Your task to perform on an android device: change notification settings in the gmail app Image 0: 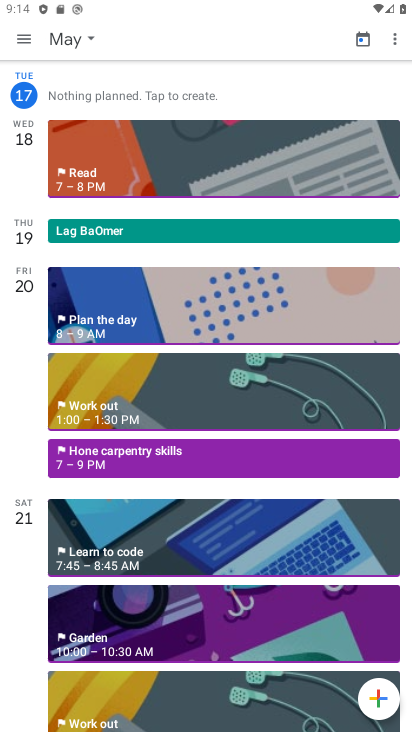
Step 0: press home button
Your task to perform on an android device: change notification settings in the gmail app Image 1: 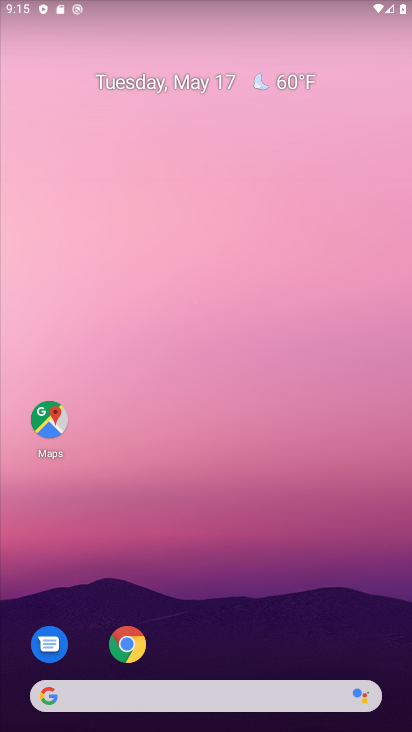
Step 1: drag from (232, 405) to (234, 102)
Your task to perform on an android device: change notification settings in the gmail app Image 2: 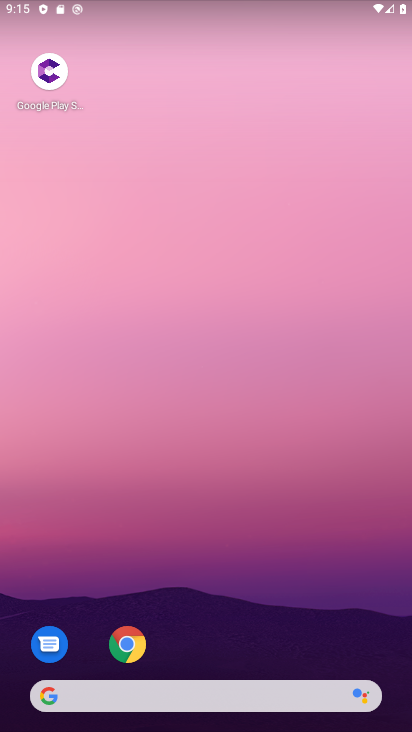
Step 2: drag from (204, 649) to (236, 84)
Your task to perform on an android device: change notification settings in the gmail app Image 3: 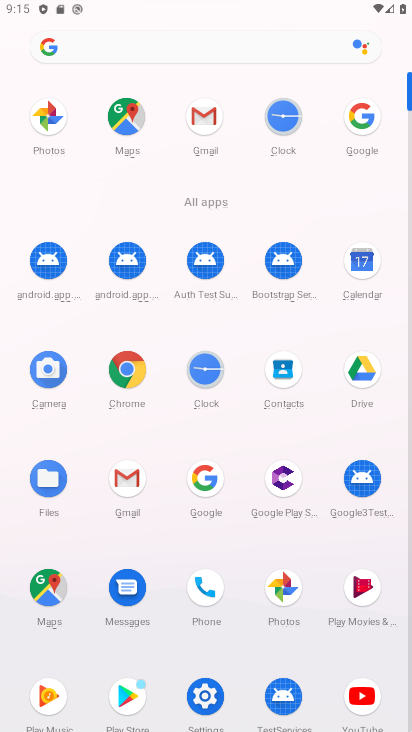
Step 3: click (126, 483)
Your task to perform on an android device: change notification settings in the gmail app Image 4: 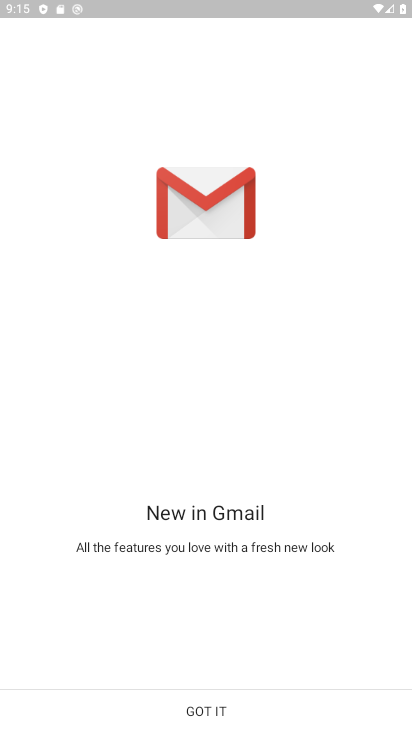
Step 4: click (178, 709)
Your task to perform on an android device: change notification settings in the gmail app Image 5: 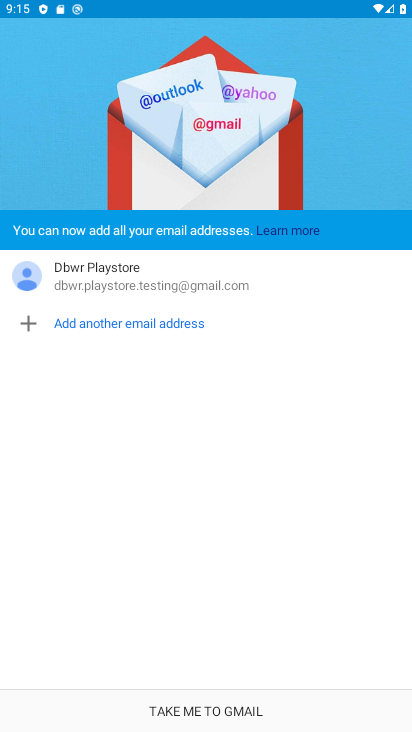
Step 5: click (209, 708)
Your task to perform on an android device: change notification settings in the gmail app Image 6: 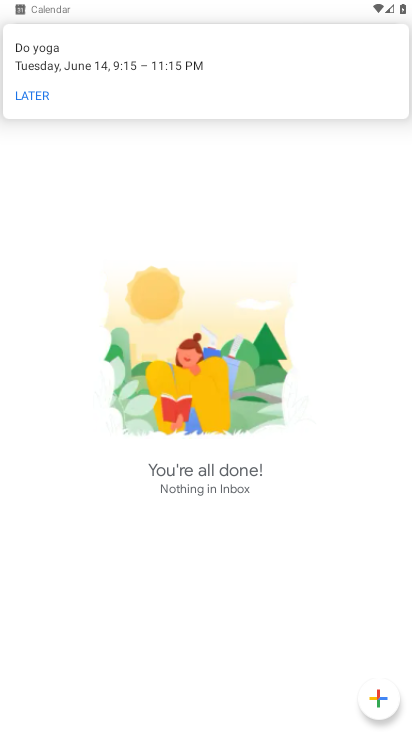
Step 6: click (45, 97)
Your task to perform on an android device: change notification settings in the gmail app Image 7: 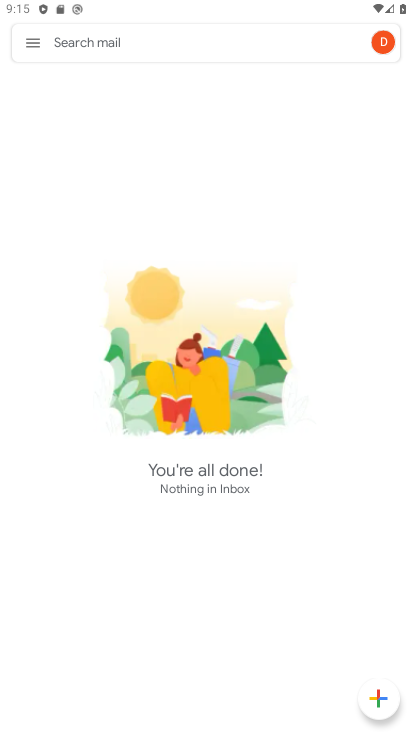
Step 7: click (34, 46)
Your task to perform on an android device: change notification settings in the gmail app Image 8: 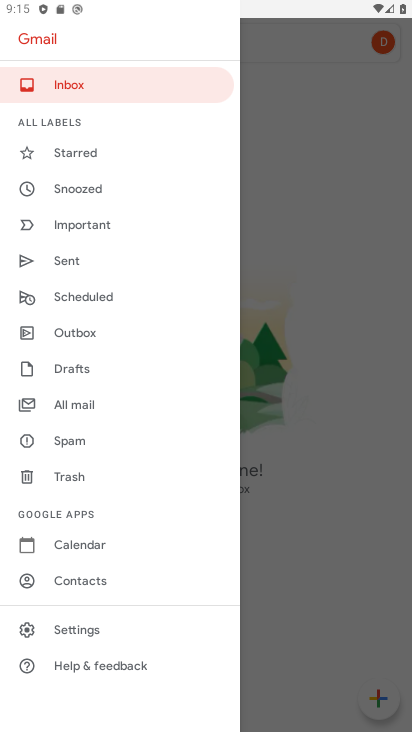
Step 8: click (68, 629)
Your task to perform on an android device: change notification settings in the gmail app Image 9: 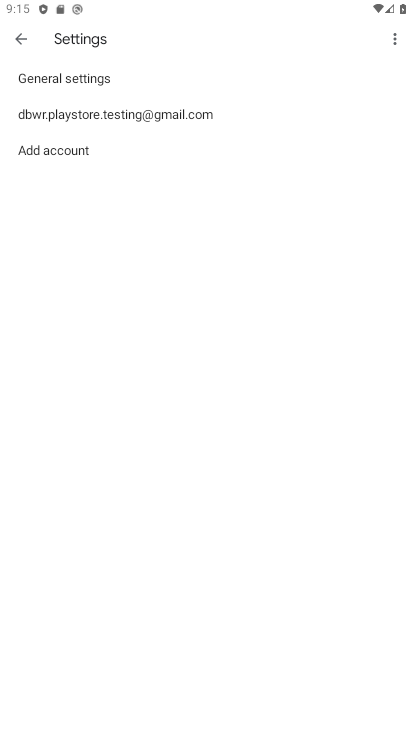
Step 9: click (148, 114)
Your task to perform on an android device: change notification settings in the gmail app Image 10: 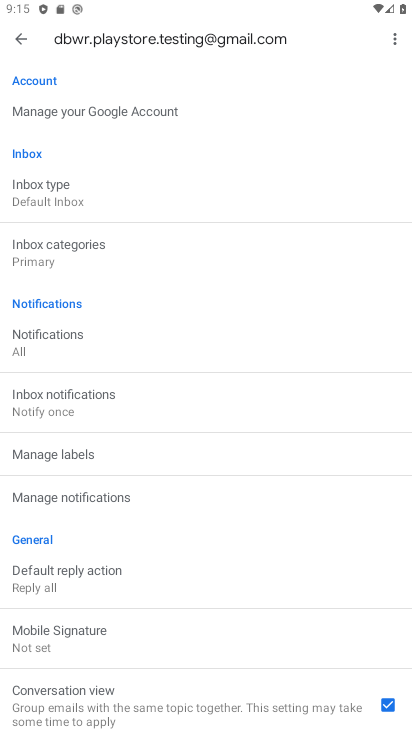
Step 10: click (87, 335)
Your task to perform on an android device: change notification settings in the gmail app Image 11: 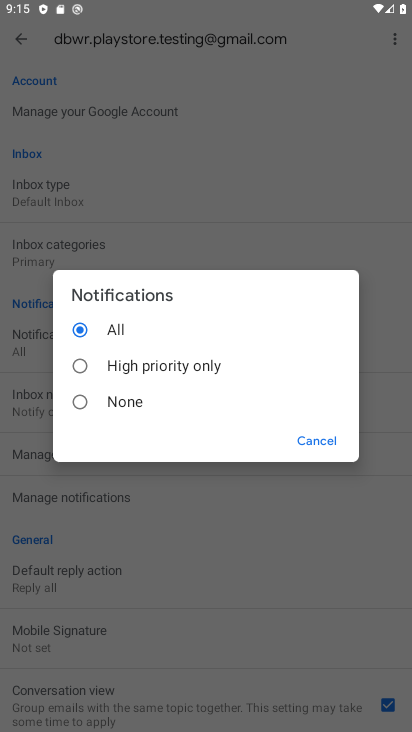
Step 11: click (127, 371)
Your task to perform on an android device: change notification settings in the gmail app Image 12: 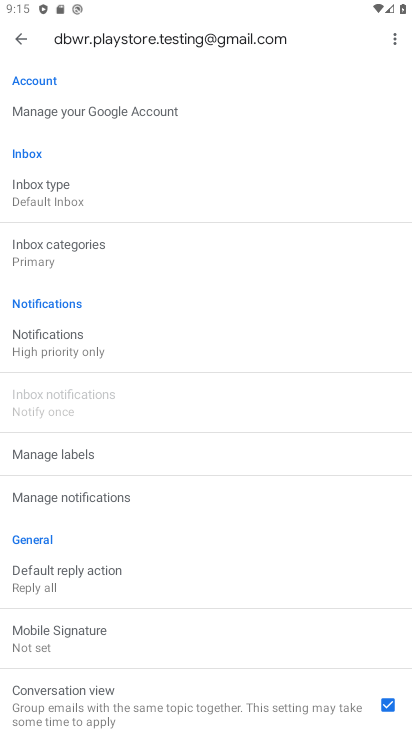
Step 12: task complete